Your task to perform on an android device: delete a single message in the gmail app Image 0: 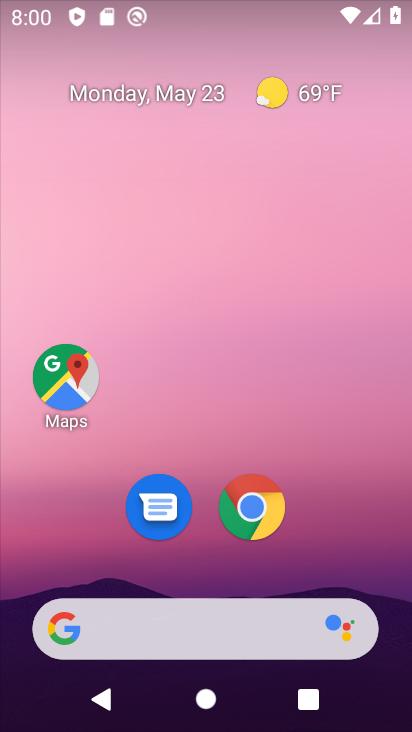
Step 0: drag from (396, 588) to (318, 18)
Your task to perform on an android device: delete a single message in the gmail app Image 1: 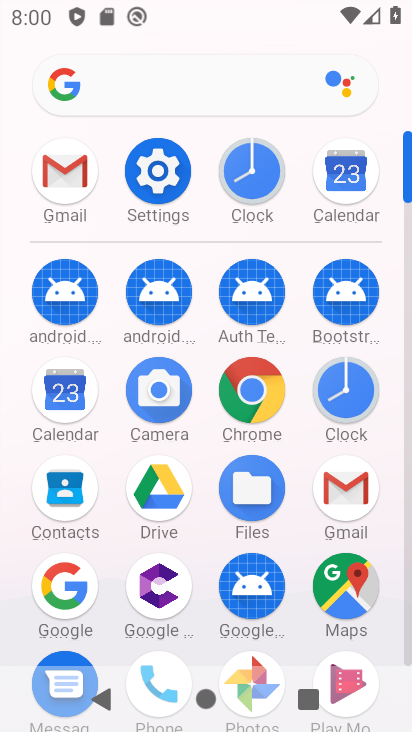
Step 1: click (62, 186)
Your task to perform on an android device: delete a single message in the gmail app Image 2: 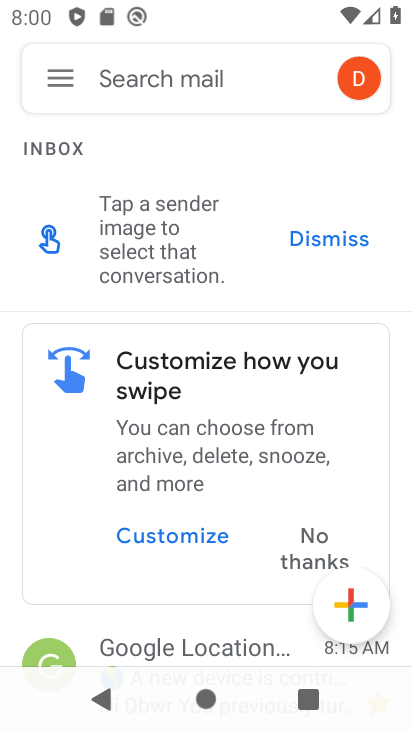
Step 2: drag from (167, 514) to (173, 229)
Your task to perform on an android device: delete a single message in the gmail app Image 3: 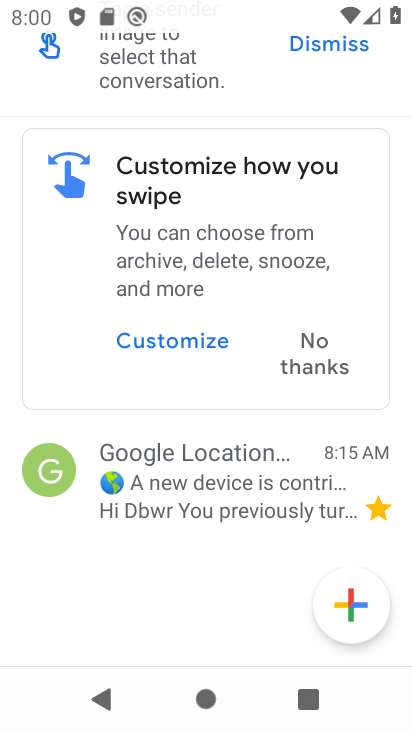
Step 3: click (205, 487)
Your task to perform on an android device: delete a single message in the gmail app Image 4: 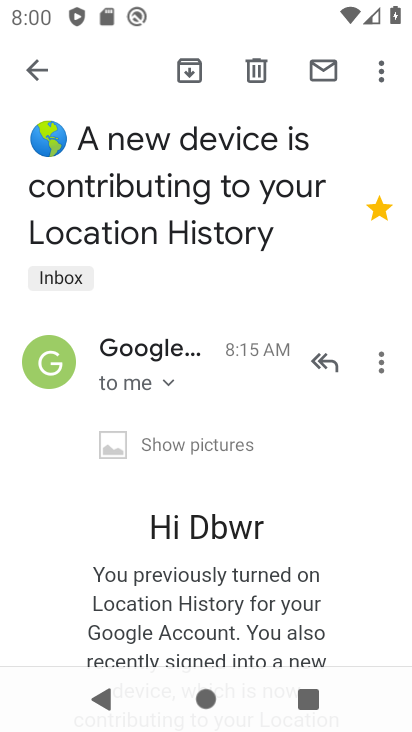
Step 4: click (257, 73)
Your task to perform on an android device: delete a single message in the gmail app Image 5: 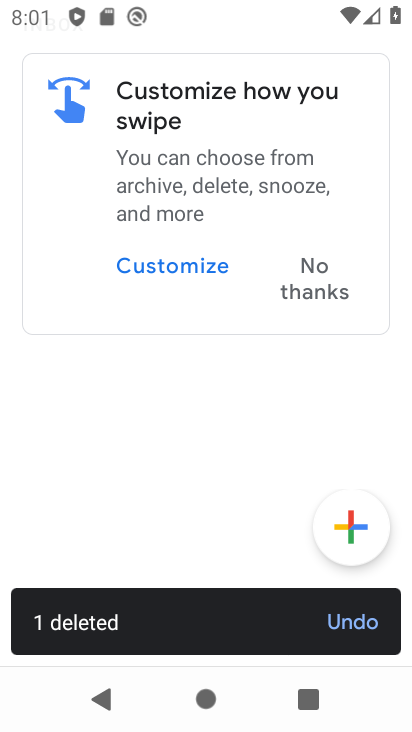
Step 5: task complete